Your task to perform on an android device: Open calendar and show me the first week of next month Image 0: 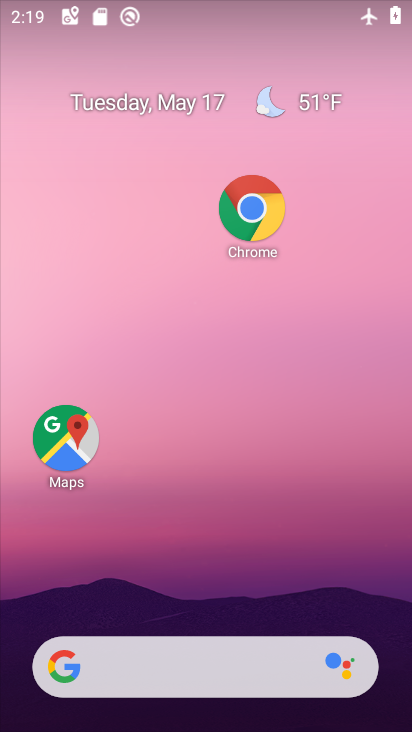
Step 0: drag from (211, 600) to (318, 17)
Your task to perform on an android device: Open calendar and show me the first week of next month Image 1: 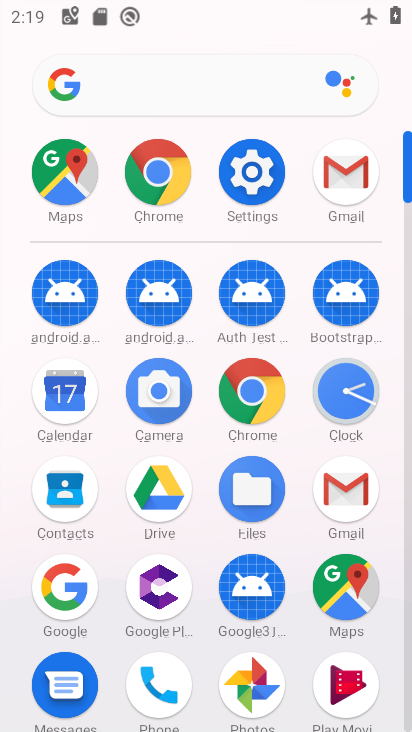
Step 1: click (78, 411)
Your task to perform on an android device: Open calendar and show me the first week of next month Image 2: 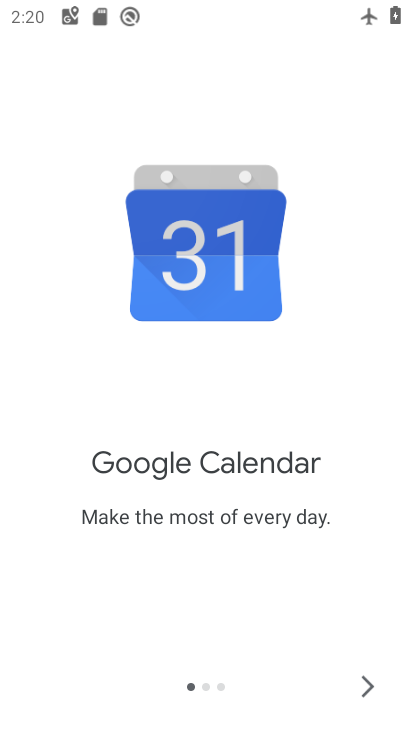
Step 2: click (354, 676)
Your task to perform on an android device: Open calendar and show me the first week of next month Image 3: 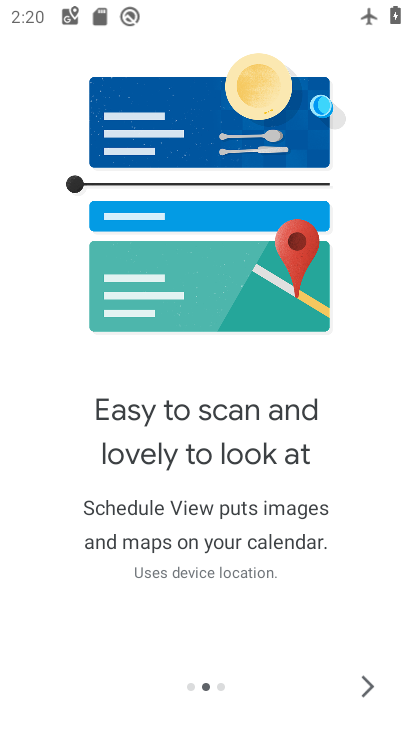
Step 3: click (355, 676)
Your task to perform on an android device: Open calendar and show me the first week of next month Image 4: 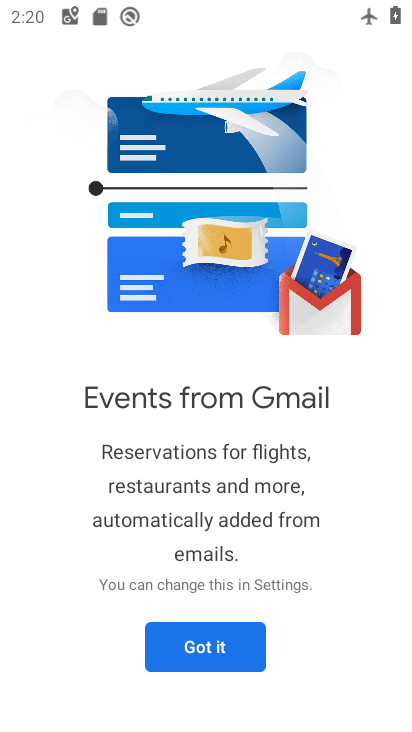
Step 4: click (264, 655)
Your task to perform on an android device: Open calendar and show me the first week of next month Image 5: 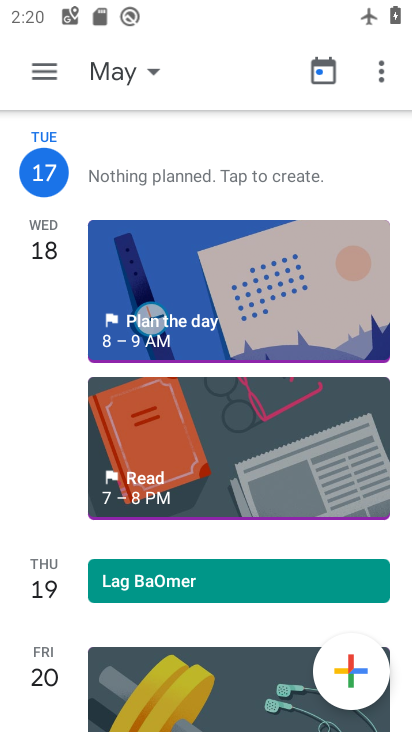
Step 5: click (23, 69)
Your task to perform on an android device: Open calendar and show me the first week of next month Image 6: 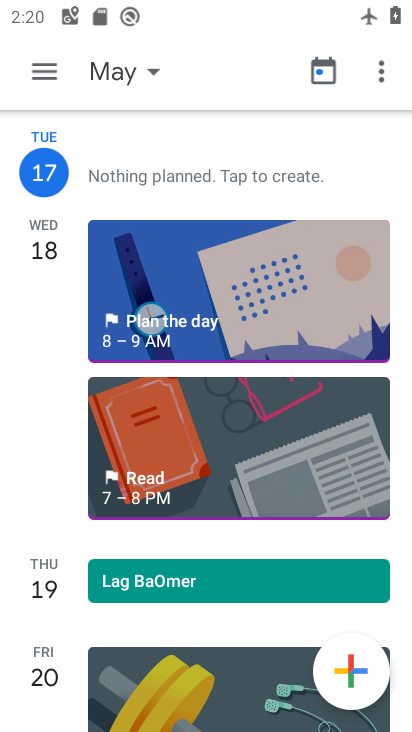
Step 6: click (53, 73)
Your task to perform on an android device: Open calendar and show me the first week of next month Image 7: 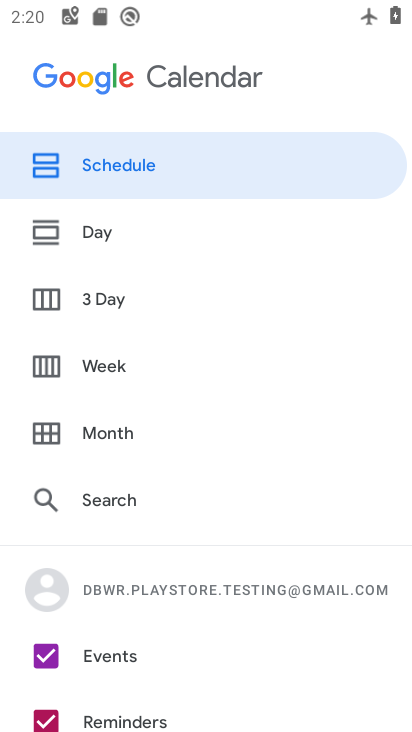
Step 7: click (110, 349)
Your task to perform on an android device: Open calendar and show me the first week of next month Image 8: 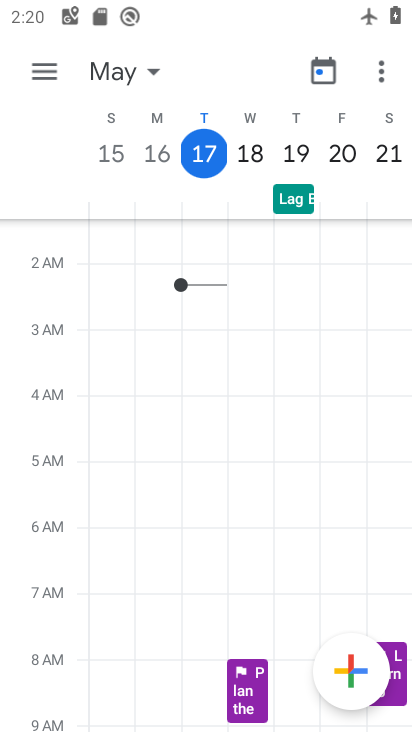
Step 8: task complete